Your task to perform on an android device: delete browsing data in the chrome app Image 0: 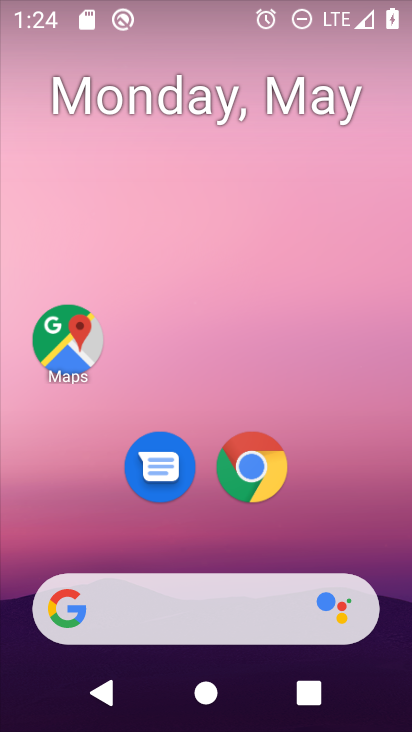
Step 0: click (266, 468)
Your task to perform on an android device: delete browsing data in the chrome app Image 1: 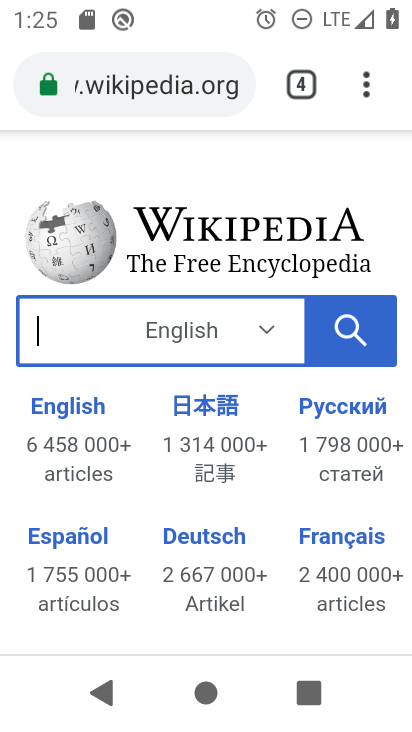
Step 1: click (369, 85)
Your task to perform on an android device: delete browsing data in the chrome app Image 2: 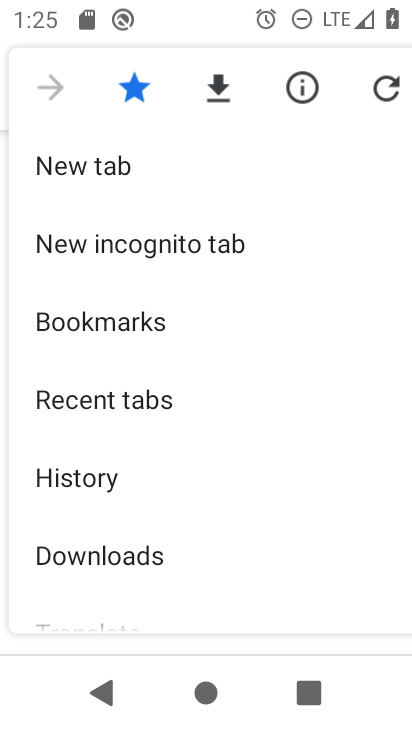
Step 2: drag from (208, 507) to (221, 100)
Your task to perform on an android device: delete browsing data in the chrome app Image 3: 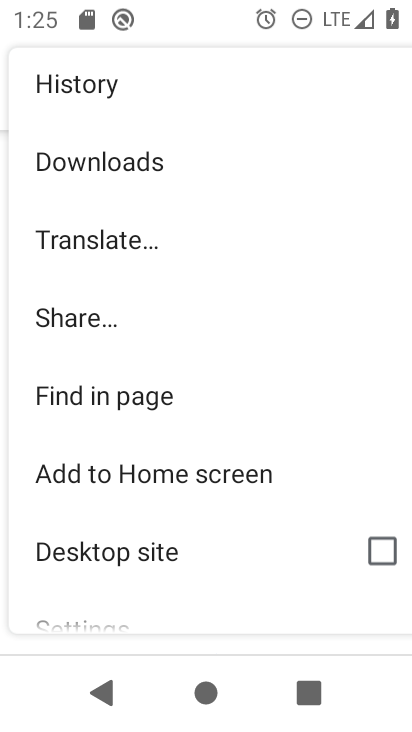
Step 3: drag from (236, 484) to (222, 161)
Your task to perform on an android device: delete browsing data in the chrome app Image 4: 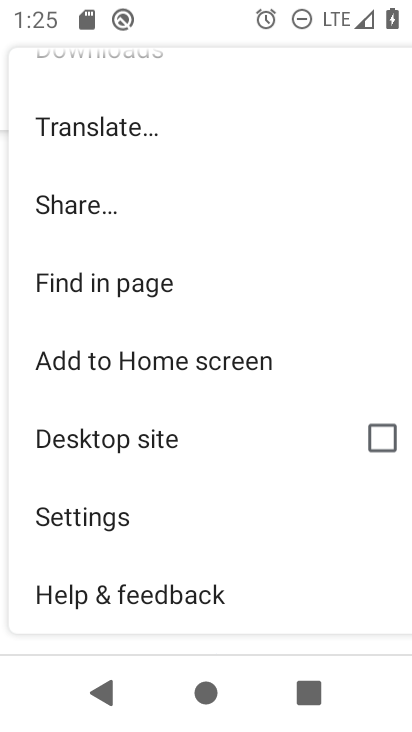
Step 4: click (103, 520)
Your task to perform on an android device: delete browsing data in the chrome app Image 5: 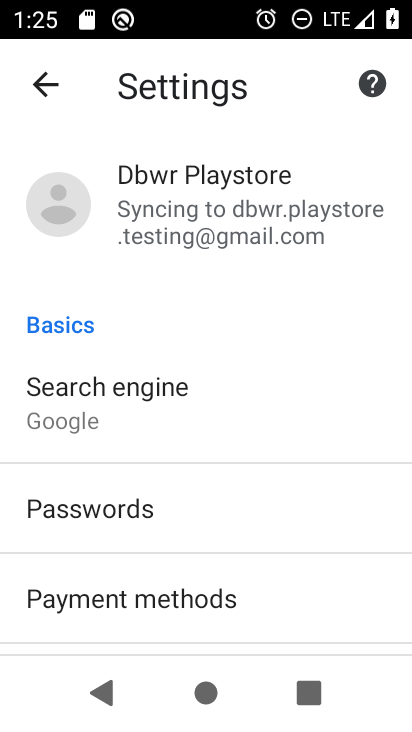
Step 5: drag from (239, 512) to (230, 182)
Your task to perform on an android device: delete browsing data in the chrome app Image 6: 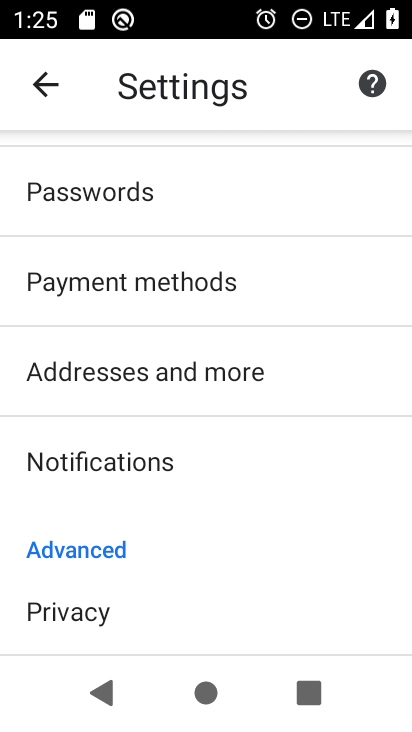
Step 6: drag from (246, 556) to (257, 293)
Your task to perform on an android device: delete browsing data in the chrome app Image 7: 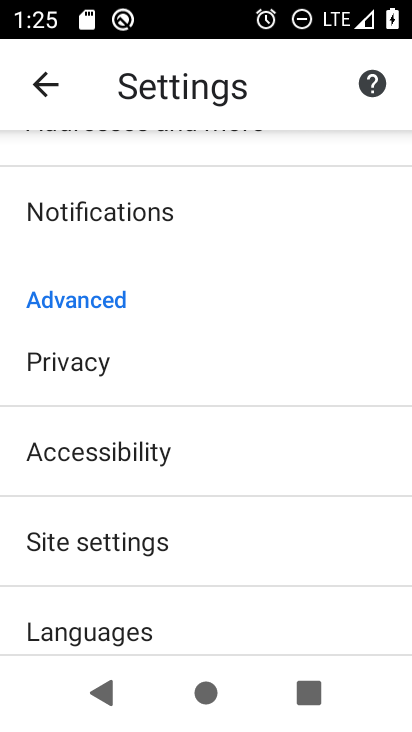
Step 7: click (50, 367)
Your task to perform on an android device: delete browsing data in the chrome app Image 8: 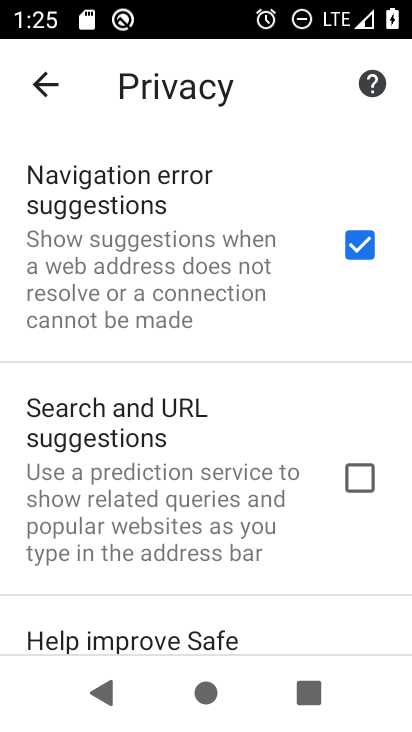
Step 8: drag from (195, 554) to (185, 218)
Your task to perform on an android device: delete browsing data in the chrome app Image 9: 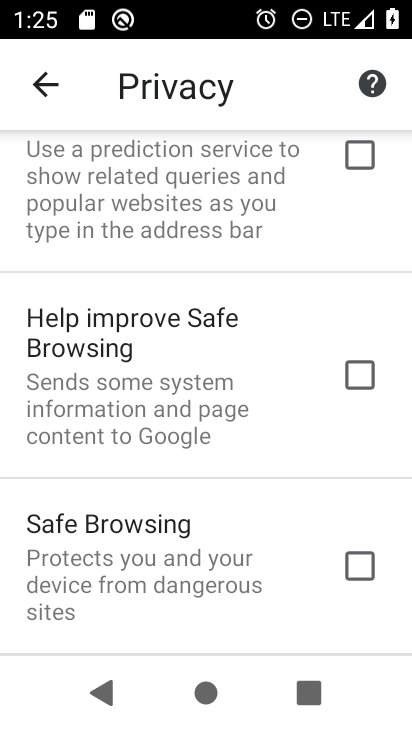
Step 9: drag from (169, 549) to (166, 200)
Your task to perform on an android device: delete browsing data in the chrome app Image 10: 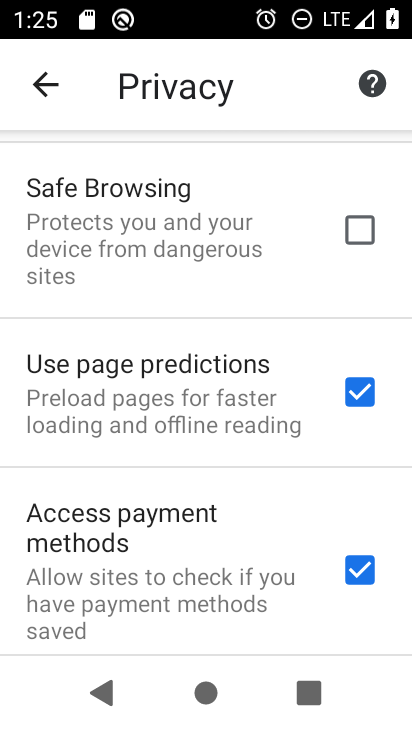
Step 10: drag from (133, 512) to (131, 173)
Your task to perform on an android device: delete browsing data in the chrome app Image 11: 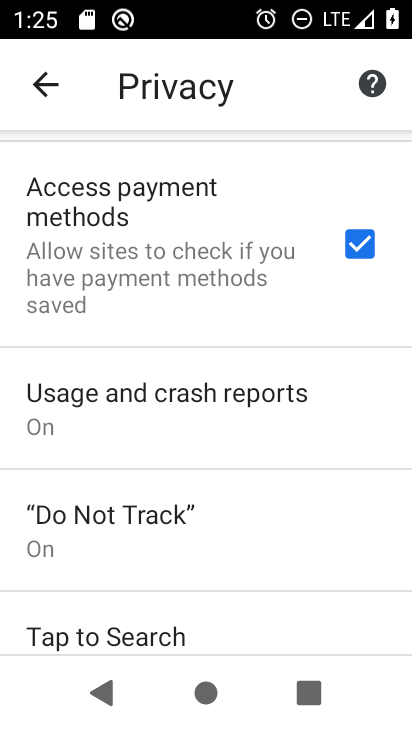
Step 11: drag from (123, 436) to (132, 128)
Your task to perform on an android device: delete browsing data in the chrome app Image 12: 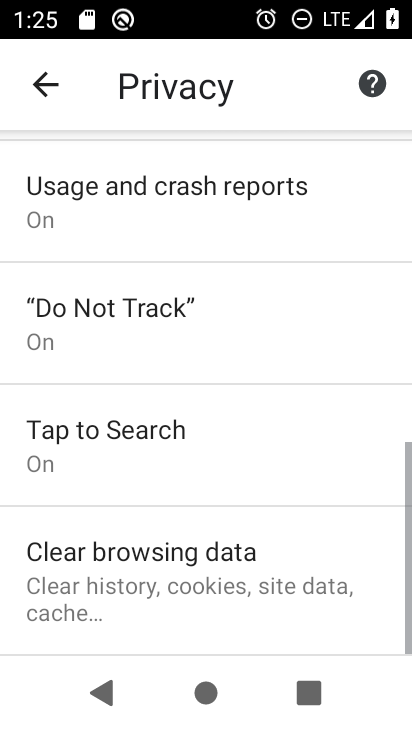
Step 12: click (114, 565)
Your task to perform on an android device: delete browsing data in the chrome app Image 13: 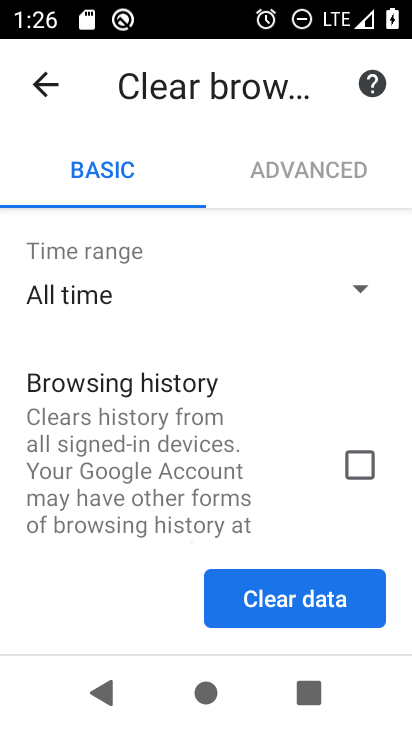
Step 13: click (362, 463)
Your task to perform on an android device: delete browsing data in the chrome app Image 14: 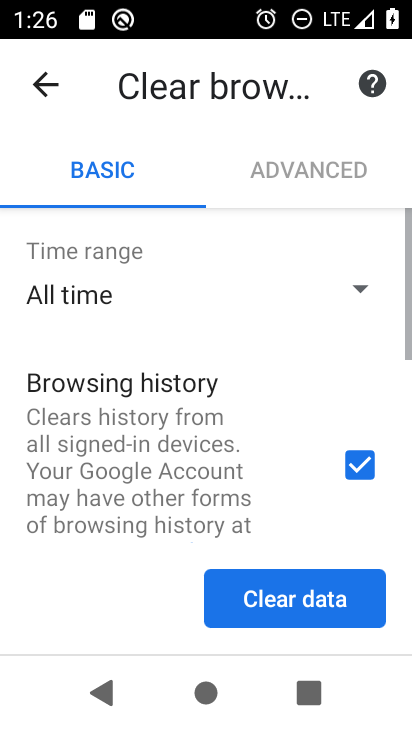
Step 14: drag from (134, 477) to (140, 149)
Your task to perform on an android device: delete browsing data in the chrome app Image 15: 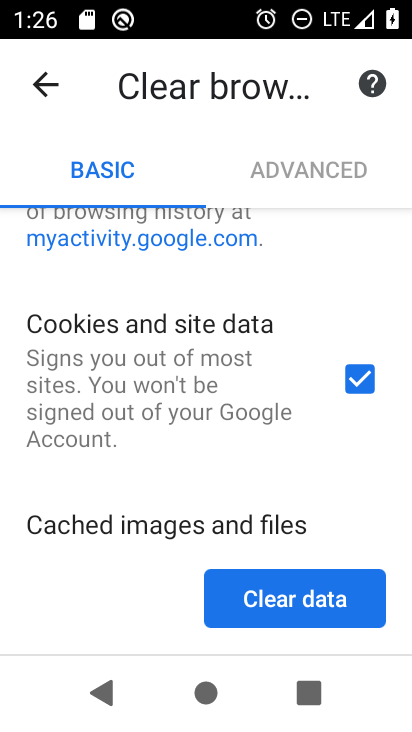
Step 15: click (375, 373)
Your task to perform on an android device: delete browsing data in the chrome app Image 16: 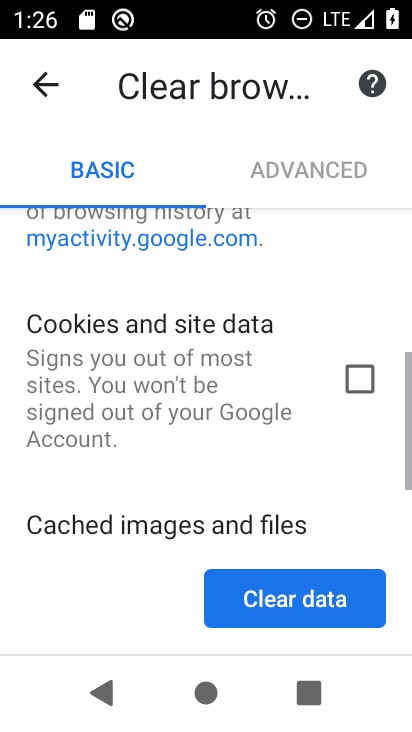
Step 16: drag from (170, 398) to (184, 164)
Your task to perform on an android device: delete browsing data in the chrome app Image 17: 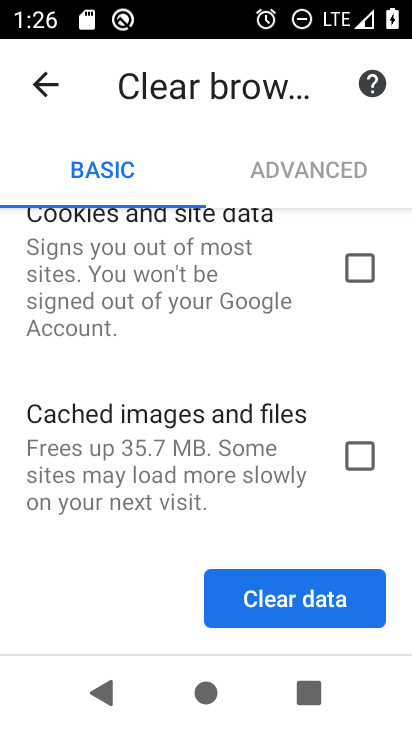
Step 17: drag from (165, 281) to (154, 629)
Your task to perform on an android device: delete browsing data in the chrome app Image 18: 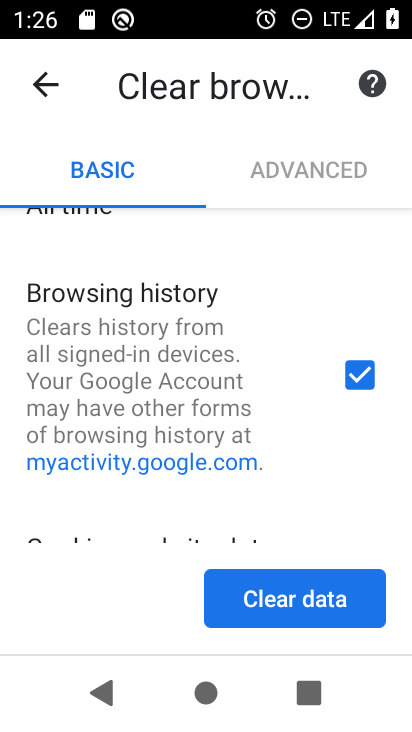
Step 18: click (287, 604)
Your task to perform on an android device: delete browsing data in the chrome app Image 19: 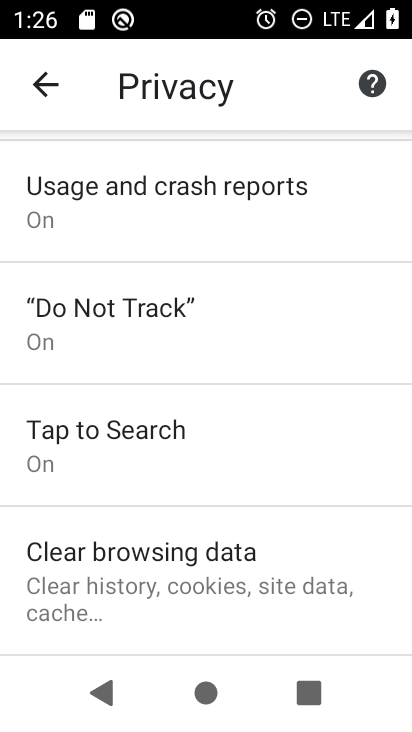
Step 19: task complete